Your task to perform on an android device: check the backup settings in the google photos Image 0: 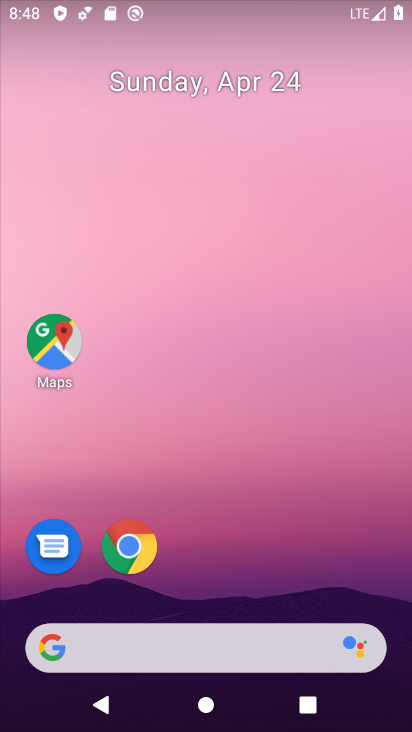
Step 0: drag from (283, 567) to (236, 203)
Your task to perform on an android device: check the backup settings in the google photos Image 1: 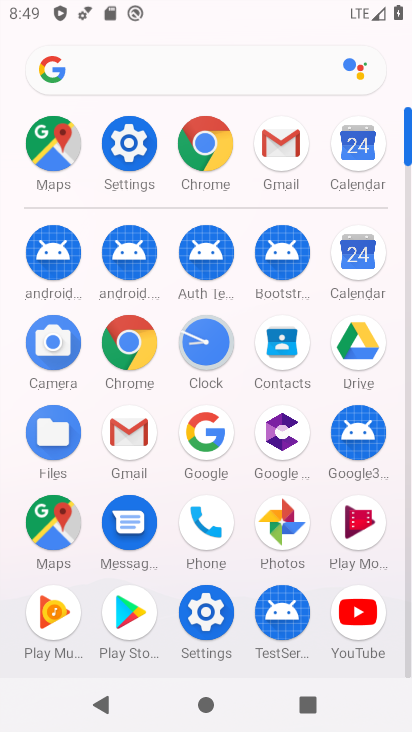
Step 1: click (283, 538)
Your task to perform on an android device: check the backup settings in the google photos Image 2: 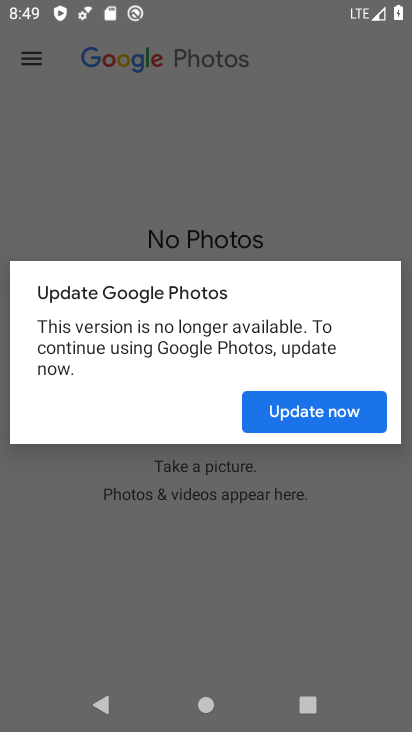
Step 2: click (308, 422)
Your task to perform on an android device: check the backup settings in the google photos Image 3: 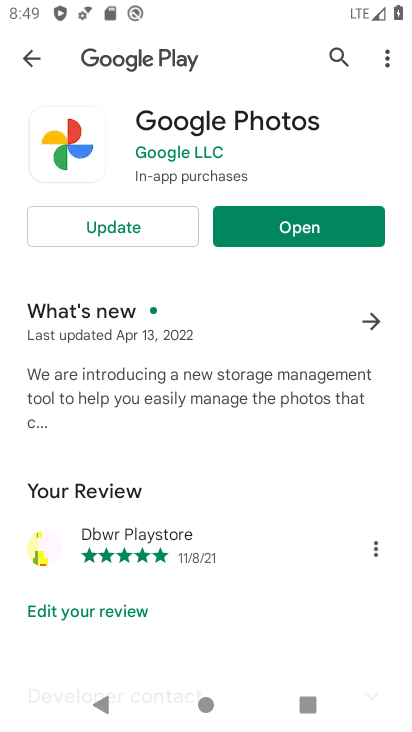
Step 3: click (95, 241)
Your task to perform on an android device: check the backup settings in the google photos Image 4: 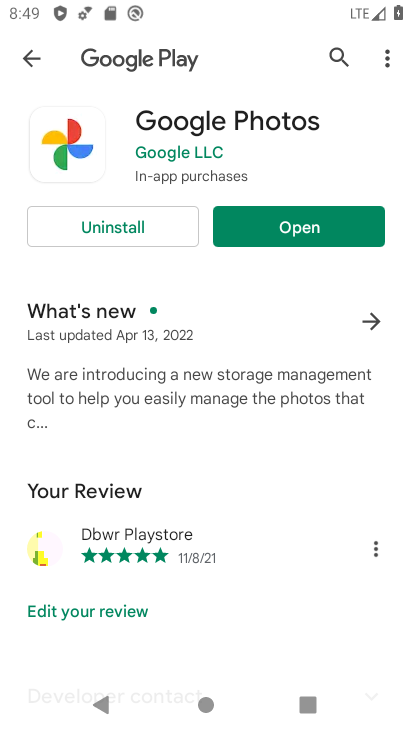
Step 4: click (290, 230)
Your task to perform on an android device: check the backup settings in the google photos Image 5: 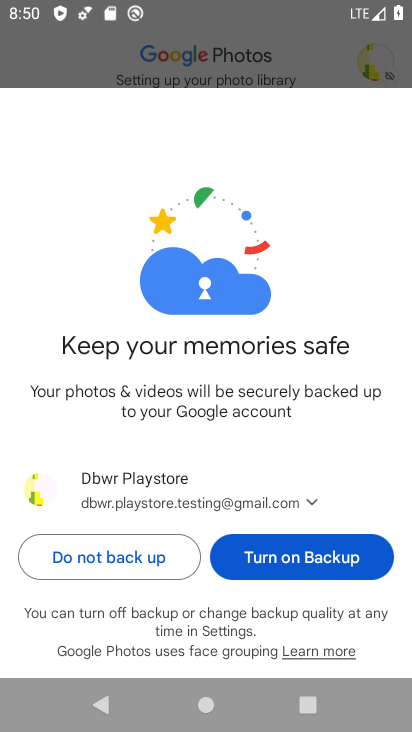
Step 5: click (288, 570)
Your task to perform on an android device: check the backup settings in the google photos Image 6: 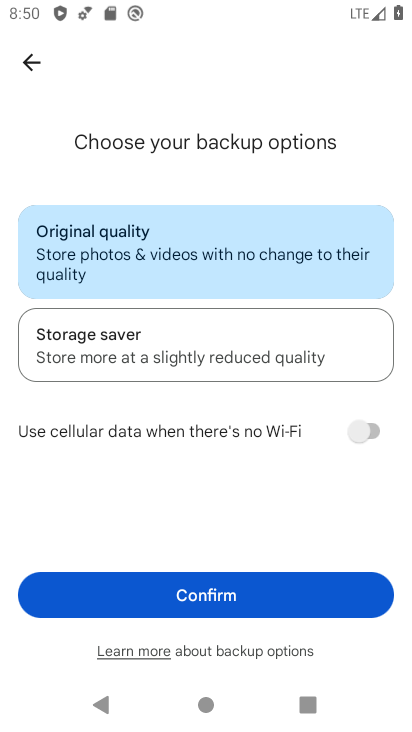
Step 6: click (251, 590)
Your task to perform on an android device: check the backup settings in the google photos Image 7: 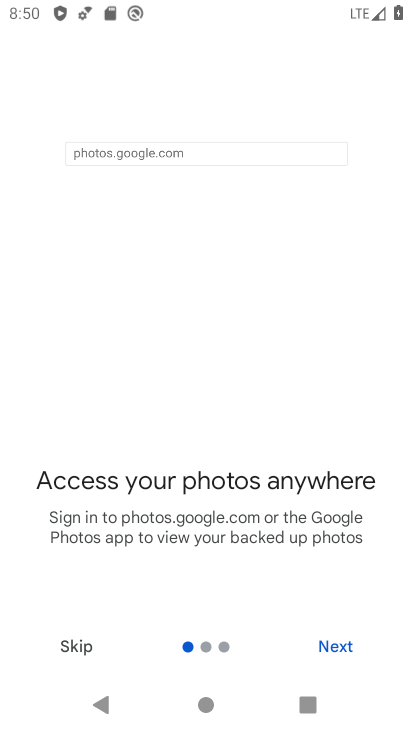
Step 7: click (352, 652)
Your task to perform on an android device: check the backup settings in the google photos Image 8: 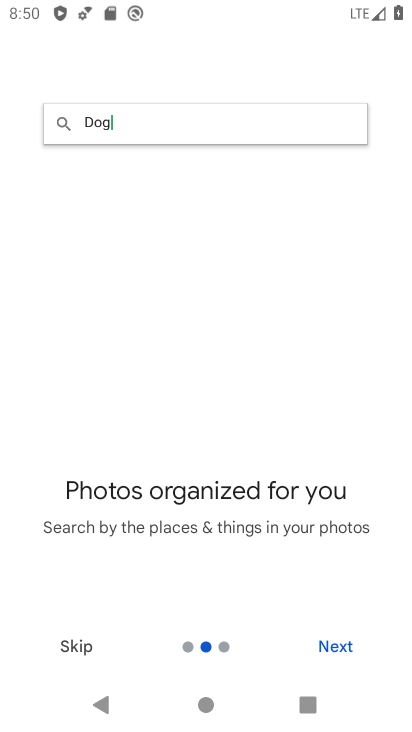
Step 8: click (352, 652)
Your task to perform on an android device: check the backup settings in the google photos Image 9: 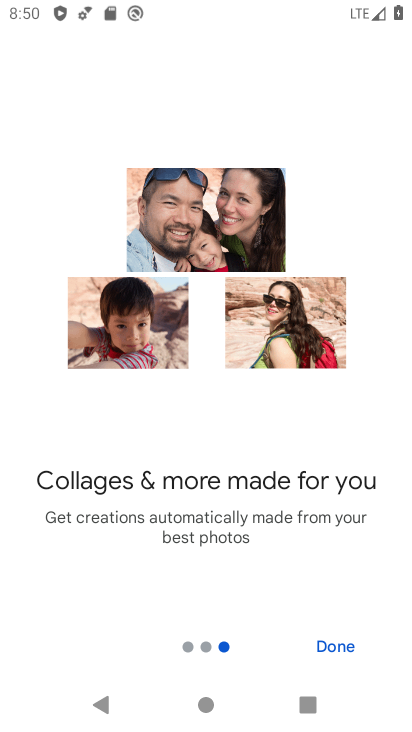
Step 9: click (352, 652)
Your task to perform on an android device: check the backup settings in the google photos Image 10: 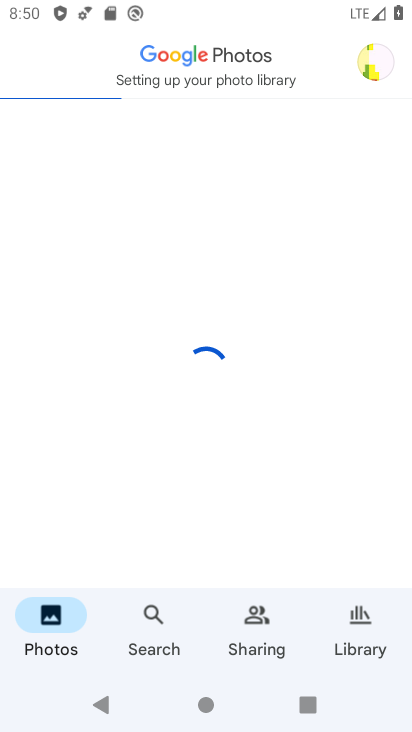
Step 10: click (372, 72)
Your task to perform on an android device: check the backup settings in the google photos Image 11: 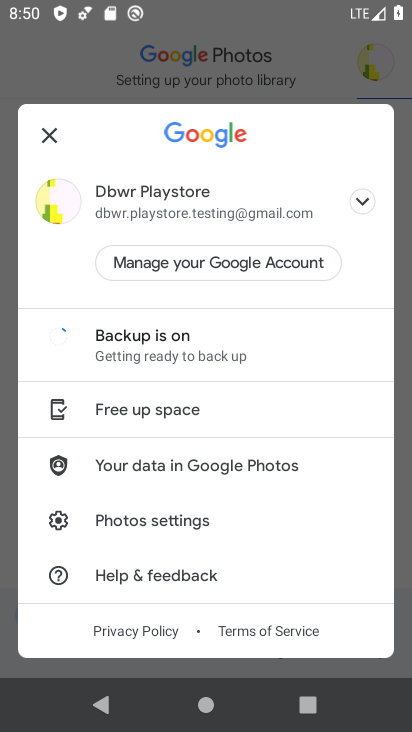
Step 11: click (216, 517)
Your task to perform on an android device: check the backup settings in the google photos Image 12: 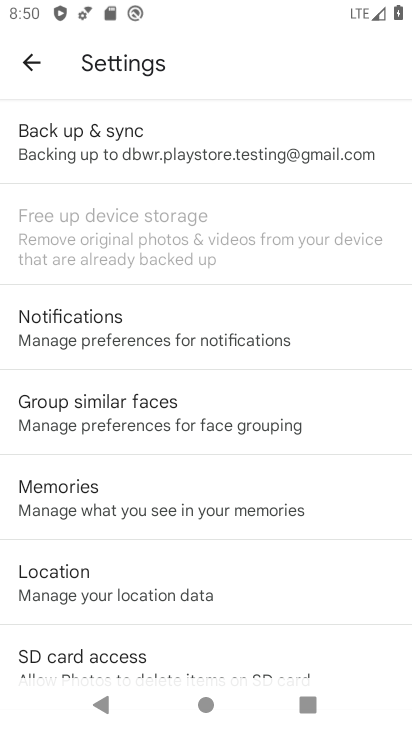
Step 12: drag from (151, 557) to (58, 223)
Your task to perform on an android device: check the backup settings in the google photos Image 13: 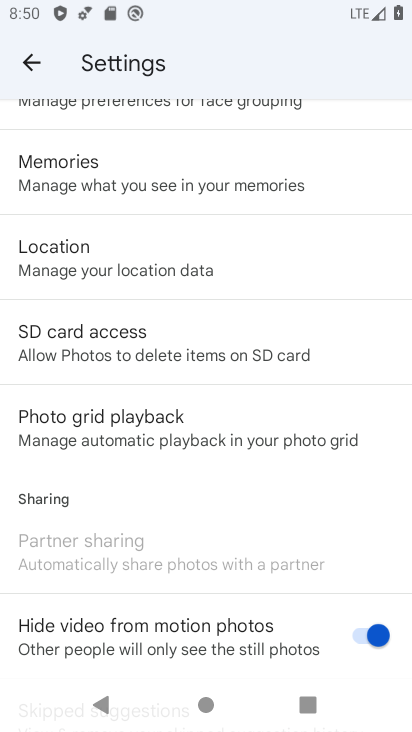
Step 13: drag from (94, 181) to (217, 638)
Your task to perform on an android device: check the backup settings in the google photos Image 14: 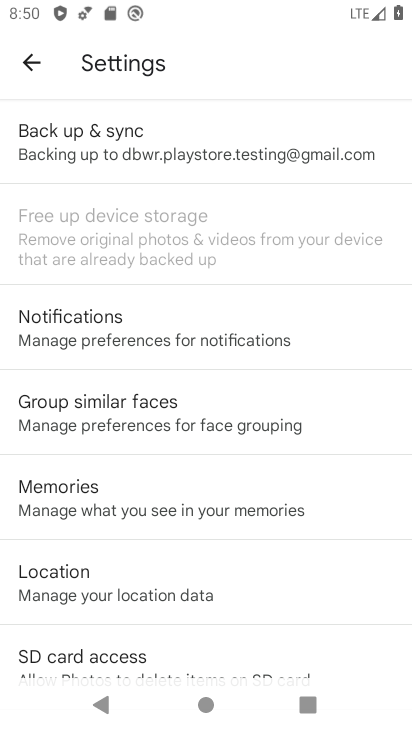
Step 14: click (290, 161)
Your task to perform on an android device: check the backup settings in the google photos Image 15: 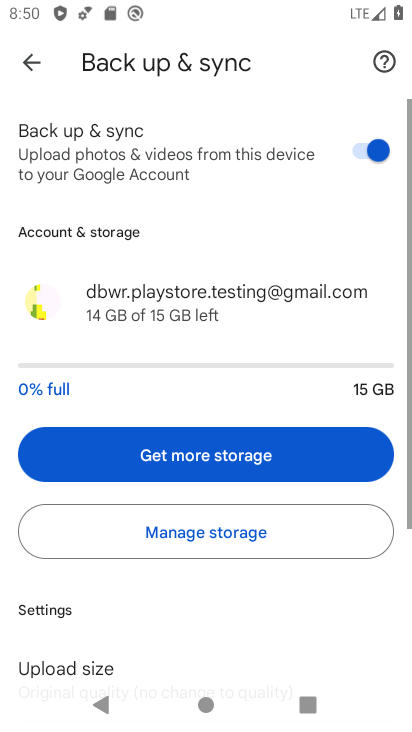
Step 15: task complete